Your task to perform on an android device: search for starred emails in the gmail app Image 0: 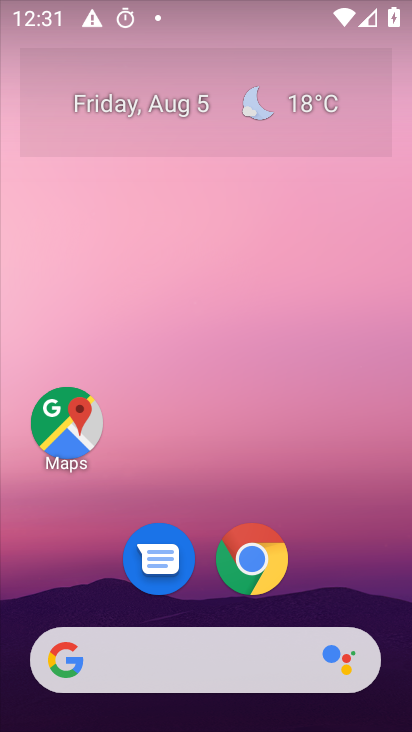
Step 0: drag from (12, 697) to (196, 388)
Your task to perform on an android device: search for starred emails in the gmail app Image 1: 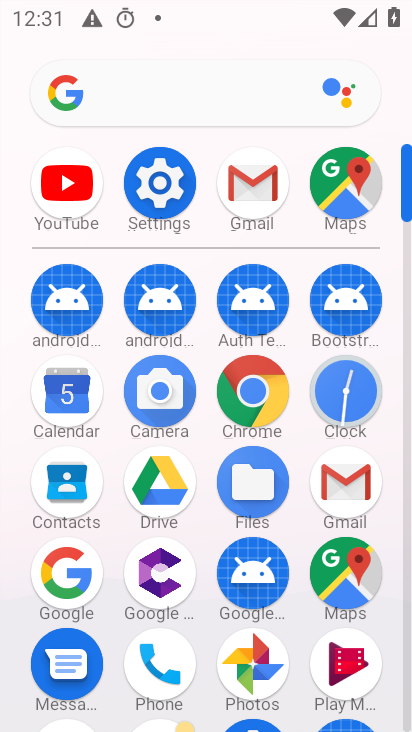
Step 1: click (243, 165)
Your task to perform on an android device: search for starred emails in the gmail app Image 2: 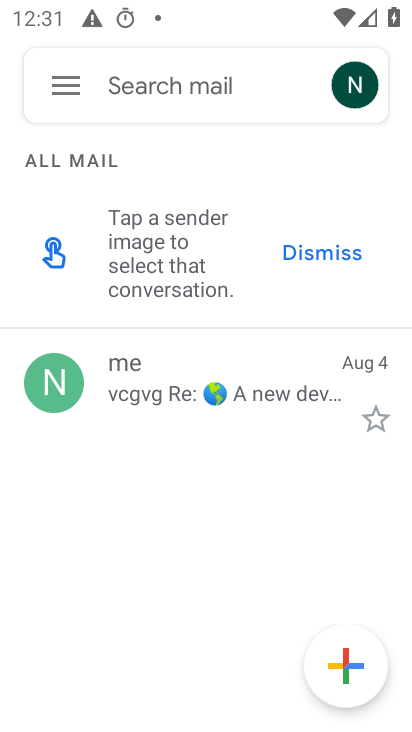
Step 2: click (69, 96)
Your task to perform on an android device: search for starred emails in the gmail app Image 3: 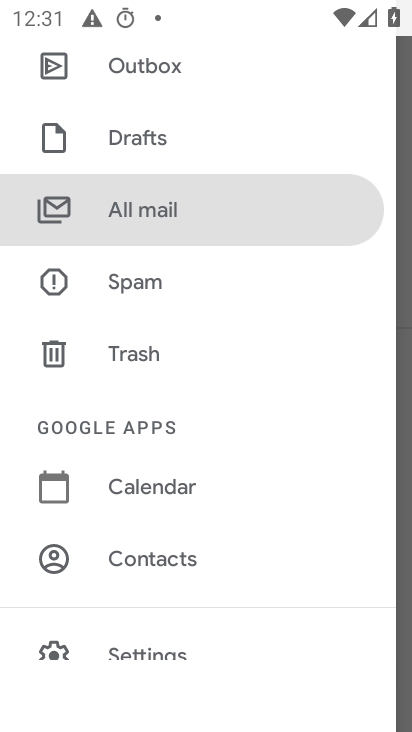
Step 3: drag from (294, 511) to (368, 3)
Your task to perform on an android device: search for starred emails in the gmail app Image 4: 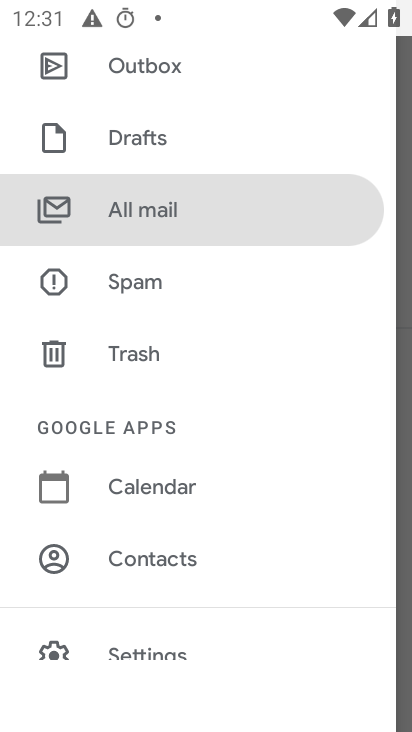
Step 4: drag from (349, 326) to (318, 57)
Your task to perform on an android device: search for starred emails in the gmail app Image 5: 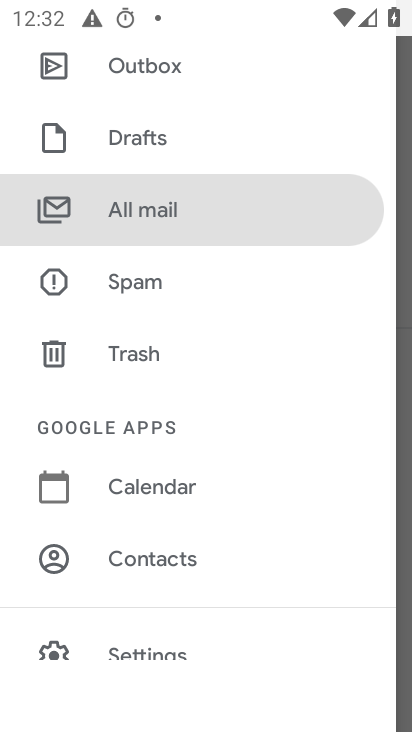
Step 5: drag from (339, 82) to (395, 538)
Your task to perform on an android device: search for starred emails in the gmail app Image 6: 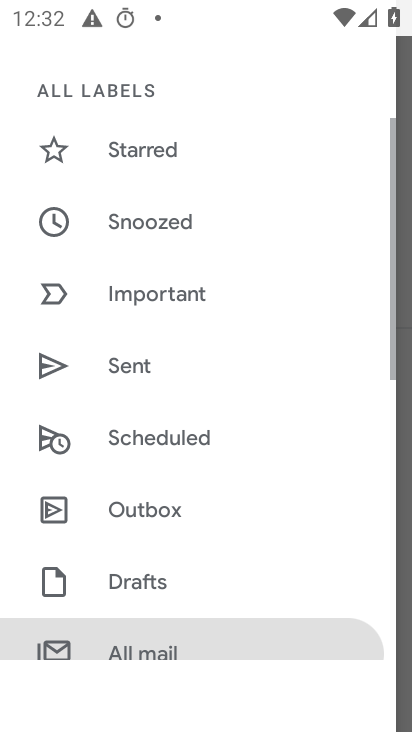
Step 6: drag from (300, 251) to (288, 647)
Your task to perform on an android device: search for starred emails in the gmail app Image 7: 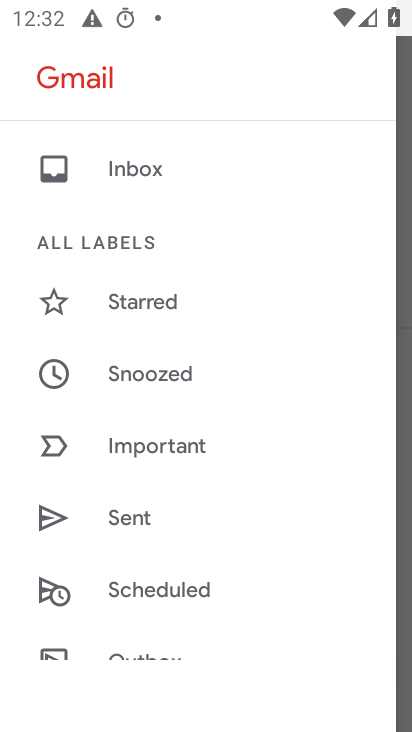
Step 7: click (133, 307)
Your task to perform on an android device: search for starred emails in the gmail app Image 8: 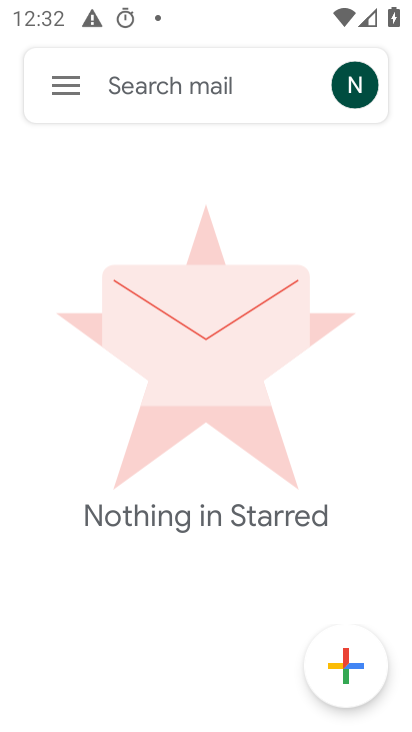
Step 8: task complete